Your task to perform on an android device: Show the shopping cart on newegg. Image 0: 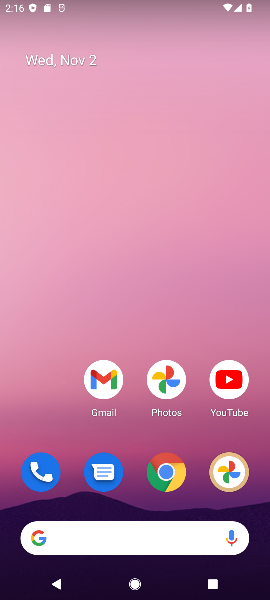
Step 0: click (170, 472)
Your task to perform on an android device: Show the shopping cart on newegg. Image 1: 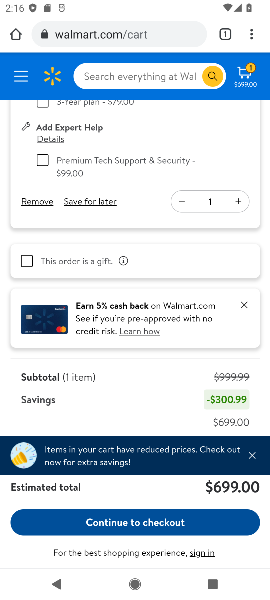
Step 1: click (82, 45)
Your task to perform on an android device: Show the shopping cart on newegg. Image 2: 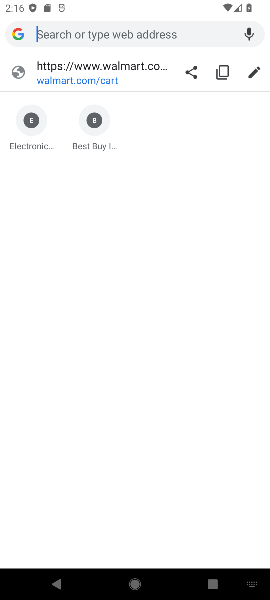
Step 2: type "newegg"
Your task to perform on an android device: Show the shopping cart on newegg. Image 3: 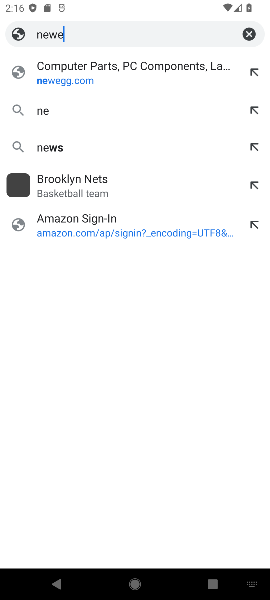
Step 3: type ""
Your task to perform on an android device: Show the shopping cart on newegg. Image 4: 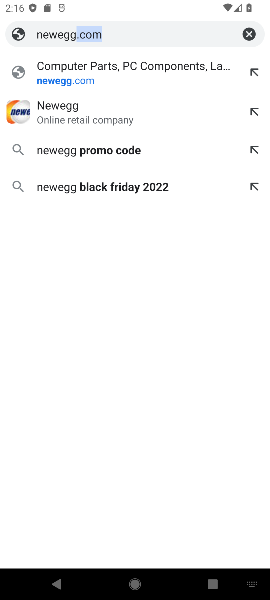
Step 4: click (99, 74)
Your task to perform on an android device: Show the shopping cart on newegg. Image 5: 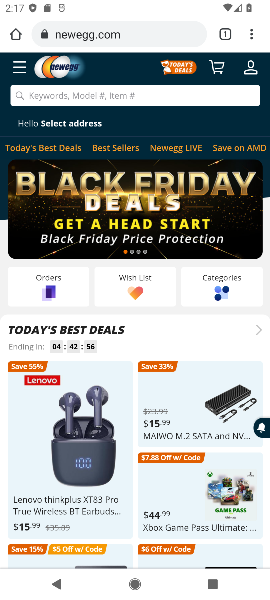
Step 5: click (97, 97)
Your task to perform on an android device: Show the shopping cart on newegg. Image 6: 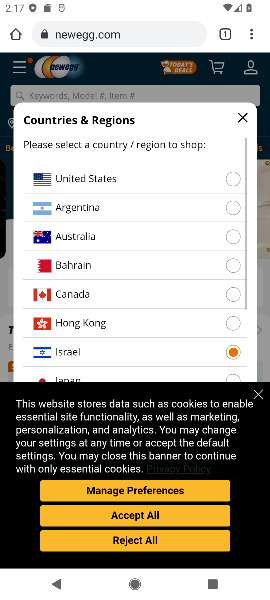
Step 6: click (234, 174)
Your task to perform on an android device: Show the shopping cart on newegg. Image 7: 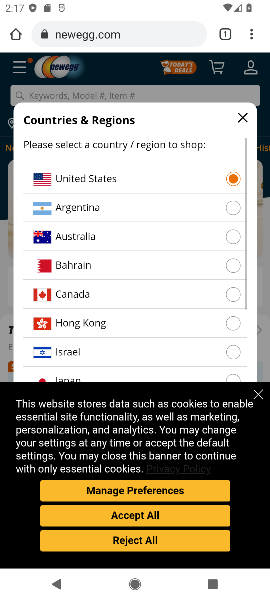
Step 7: drag from (157, 340) to (183, 108)
Your task to perform on an android device: Show the shopping cart on newegg. Image 8: 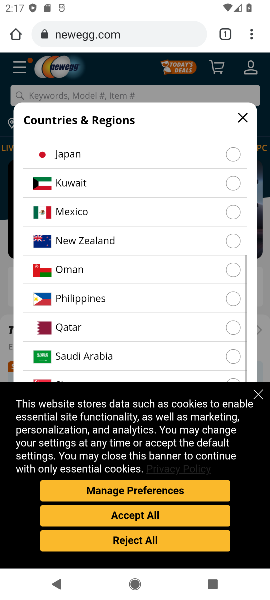
Step 8: drag from (167, 340) to (178, 109)
Your task to perform on an android device: Show the shopping cart on newegg. Image 9: 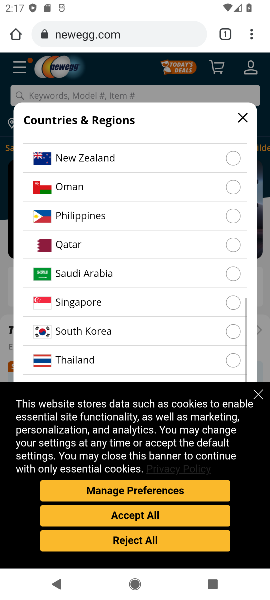
Step 9: drag from (147, 292) to (181, 100)
Your task to perform on an android device: Show the shopping cart on newegg. Image 10: 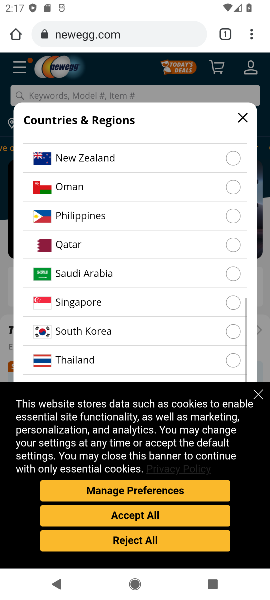
Step 10: click (239, 116)
Your task to perform on an android device: Show the shopping cart on newegg. Image 11: 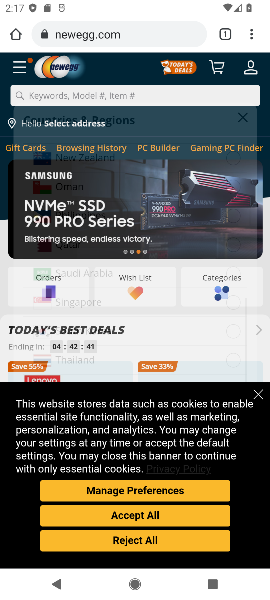
Step 11: click (171, 551)
Your task to perform on an android device: Show the shopping cart on newegg. Image 12: 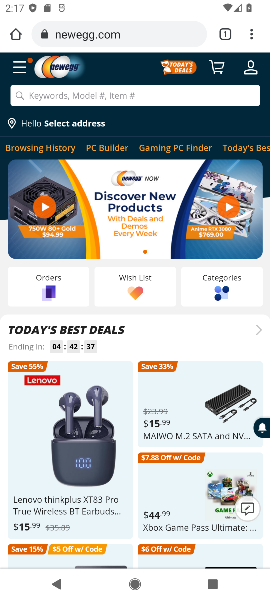
Step 12: click (217, 66)
Your task to perform on an android device: Show the shopping cart on newegg. Image 13: 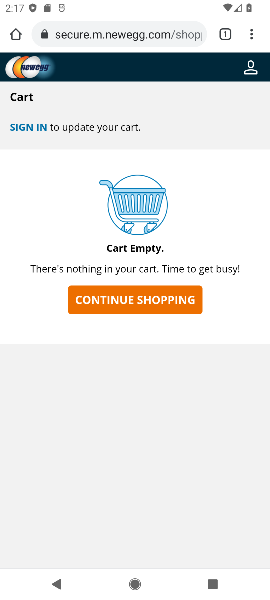
Step 13: drag from (202, 246) to (214, 151)
Your task to perform on an android device: Show the shopping cart on newegg. Image 14: 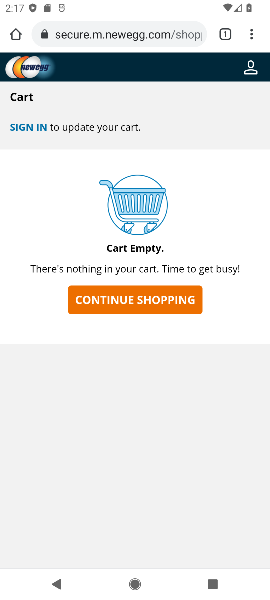
Step 14: click (163, 299)
Your task to perform on an android device: Show the shopping cart on newegg. Image 15: 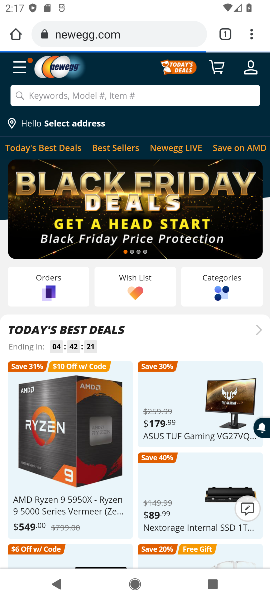
Step 15: task complete